Your task to perform on an android device: Open Google Chrome Image 0: 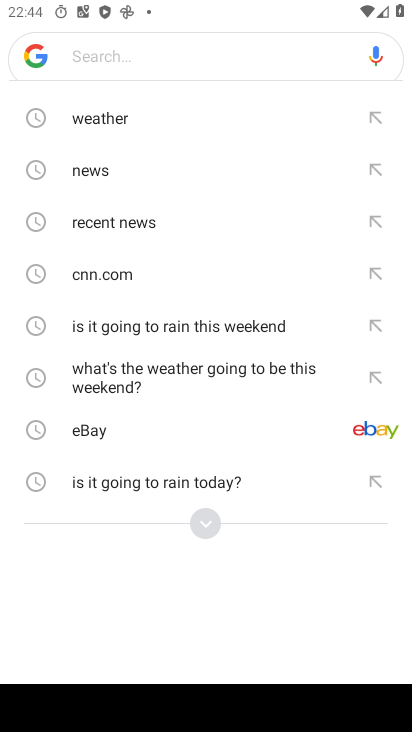
Step 0: press home button
Your task to perform on an android device: Open Google Chrome Image 1: 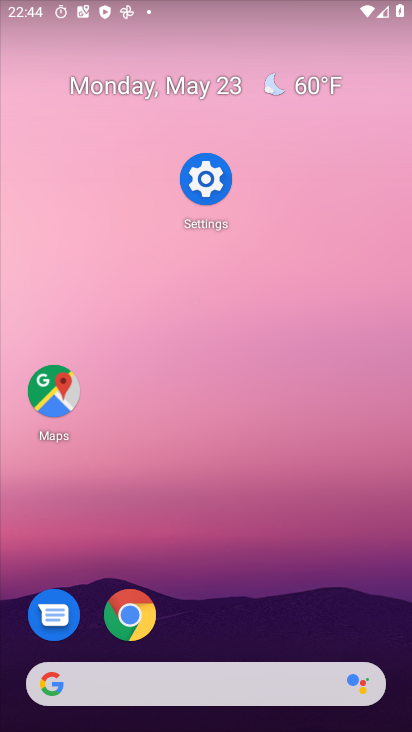
Step 1: click (131, 612)
Your task to perform on an android device: Open Google Chrome Image 2: 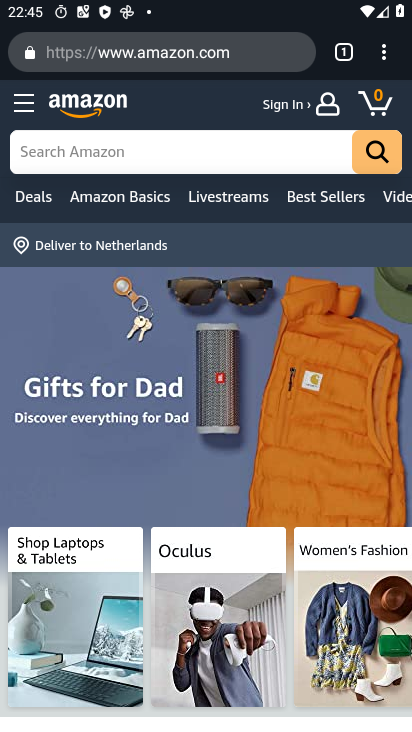
Step 2: task complete